Your task to perform on an android device: clear all cookies in the chrome app Image 0: 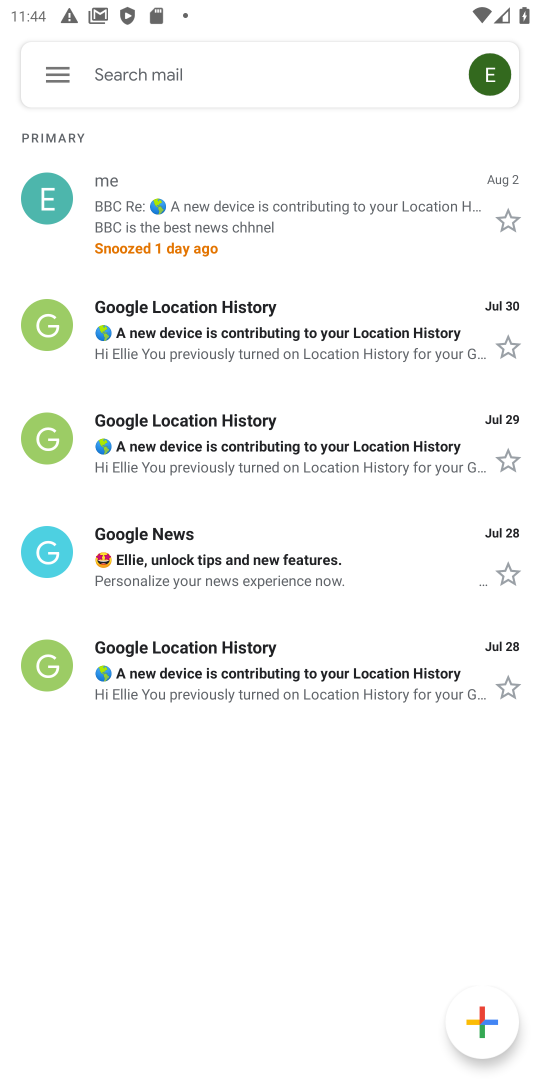
Step 0: press home button
Your task to perform on an android device: clear all cookies in the chrome app Image 1: 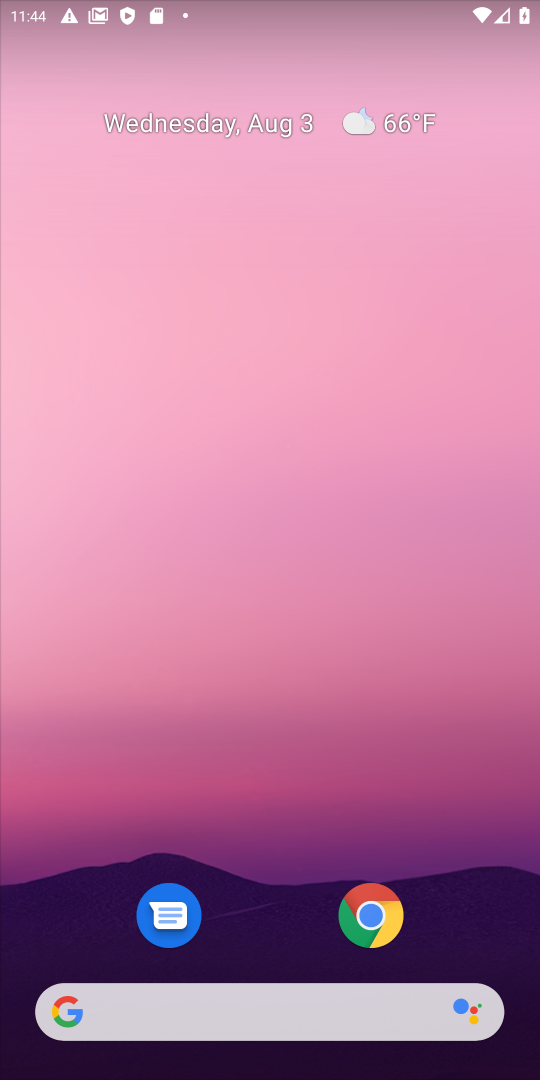
Step 1: click (371, 921)
Your task to perform on an android device: clear all cookies in the chrome app Image 2: 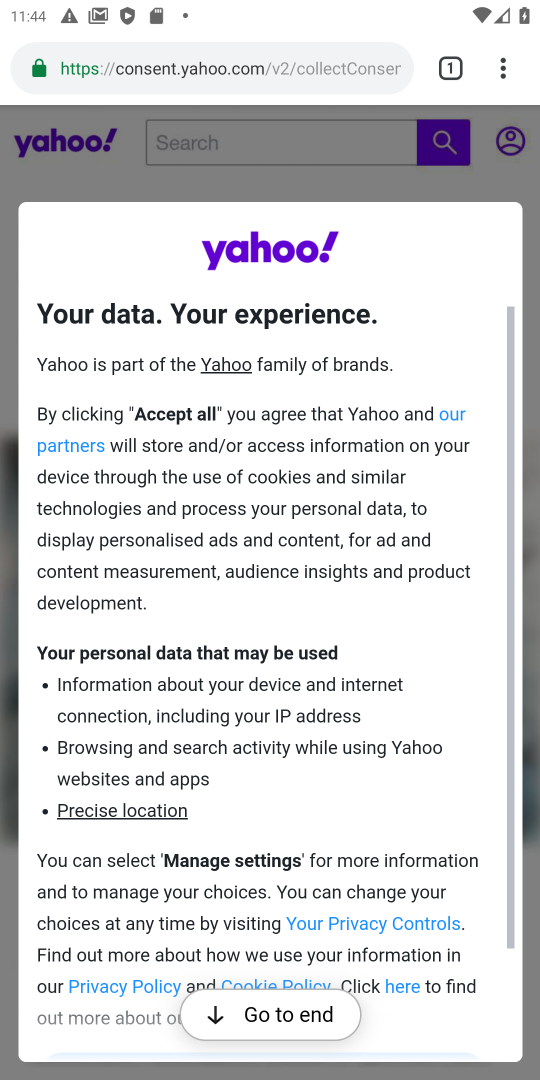
Step 2: click (506, 81)
Your task to perform on an android device: clear all cookies in the chrome app Image 3: 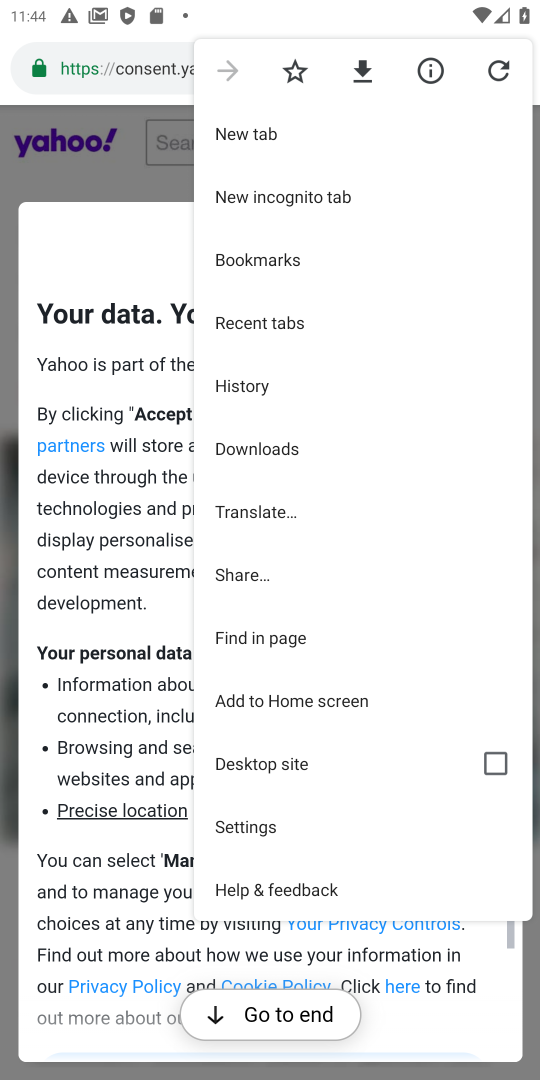
Step 3: click (242, 386)
Your task to perform on an android device: clear all cookies in the chrome app Image 4: 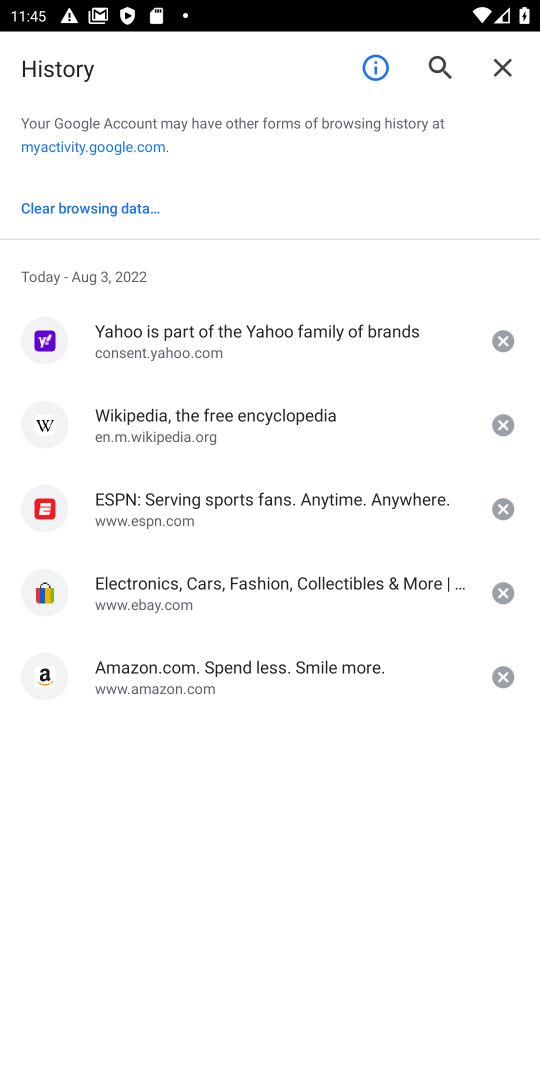
Step 4: click (113, 212)
Your task to perform on an android device: clear all cookies in the chrome app Image 5: 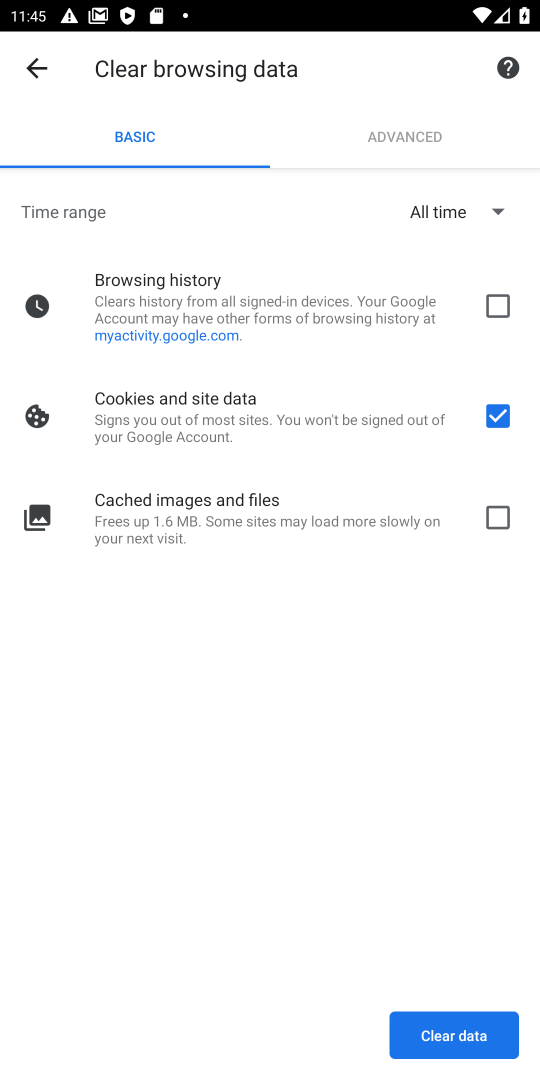
Step 5: click (428, 1046)
Your task to perform on an android device: clear all cookies in the chrome app Image 6: 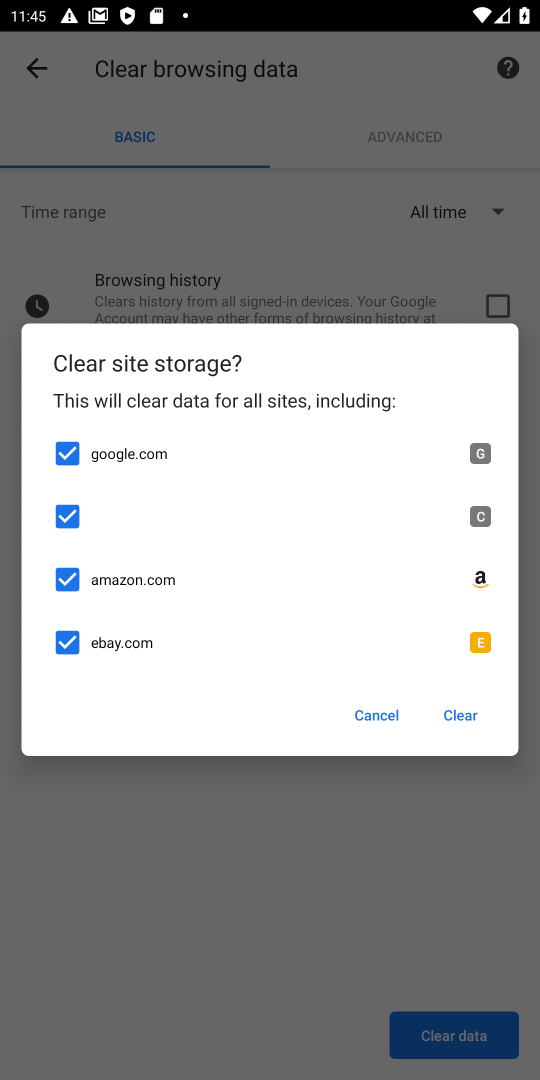
Step 6: click (469, 718)
Your task to perform on an android device: clear all cookies in the chrome app Image 7: 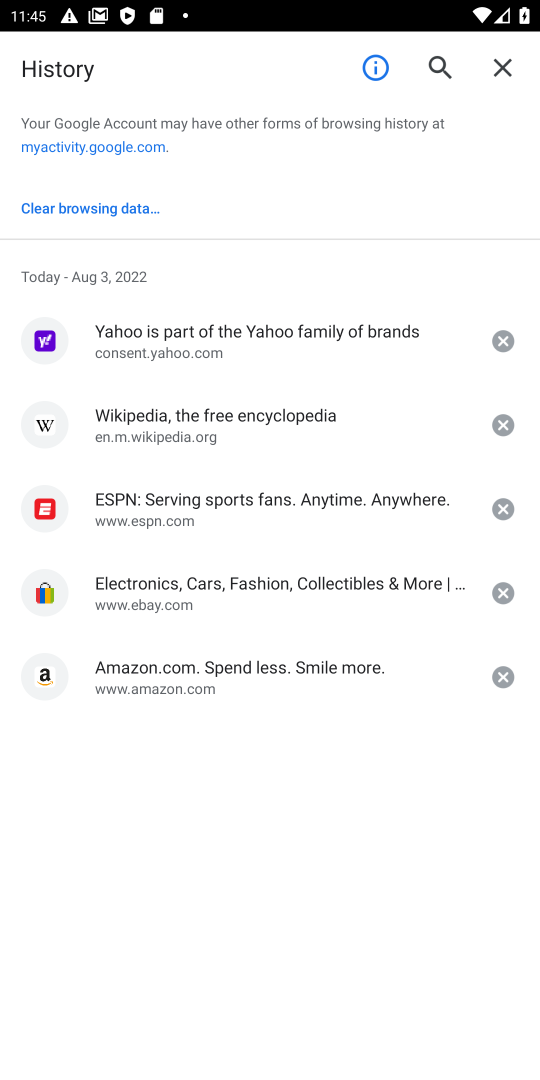
Step 7: task complete